Your task to perform on an android device: set the stopwatch Image 0: 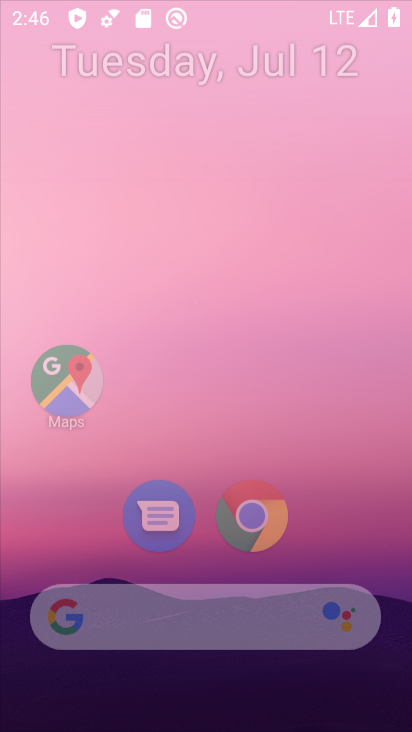
Step 0: press home button
Your task to perform on an android device: set the stopwatch Image 1: 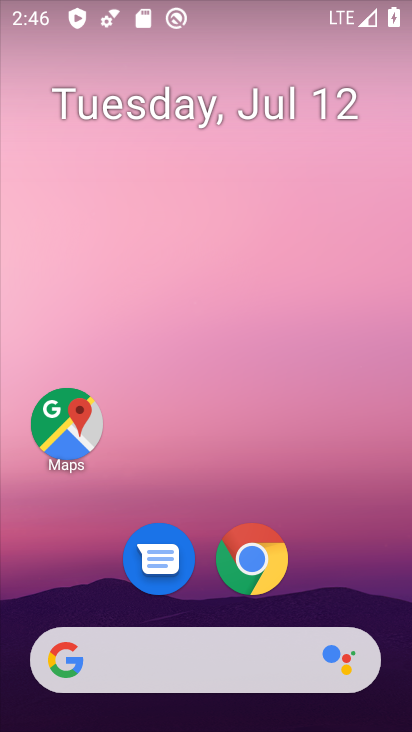
Step 1: drag from (352, 610) to (332, 171)
Your task to perform on an android device: set the stopwatch Image 2: 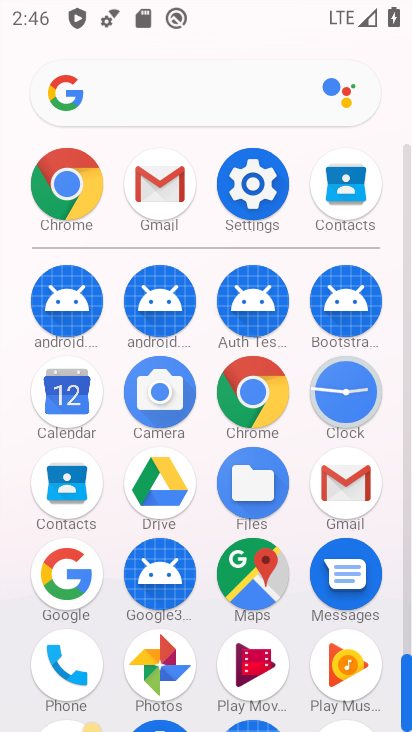
Step 2: click (363, 396)
Your task to perform on an android device: set the stopwatch Image 3: 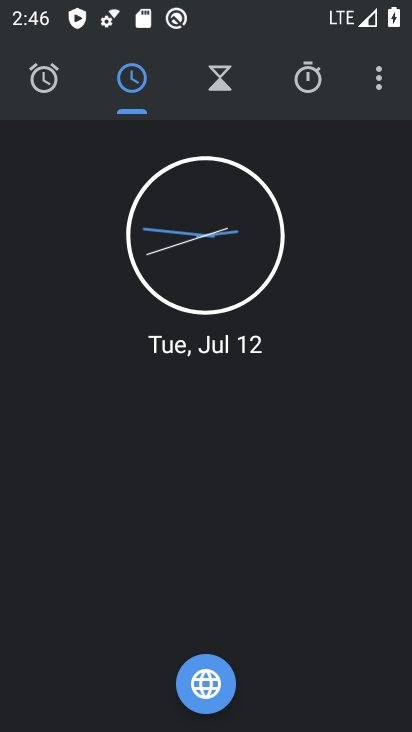
Step 3: click (305, 78)
Your task to perform on an android device: set the stopwatch Image 4: 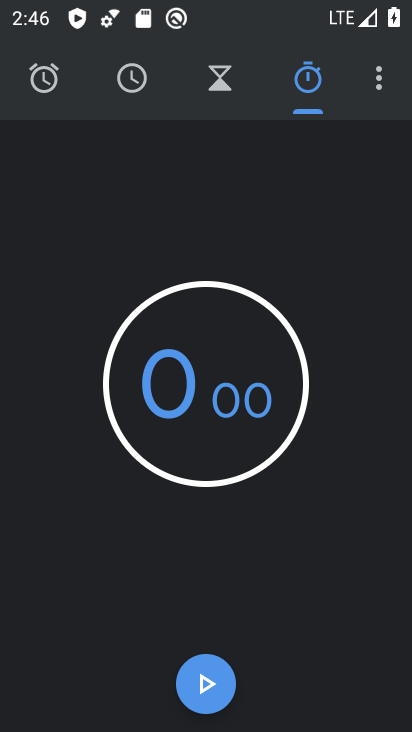
Step 4: click (218, 684)
Your task to perform on an android device: set the stopwatch Image 5: 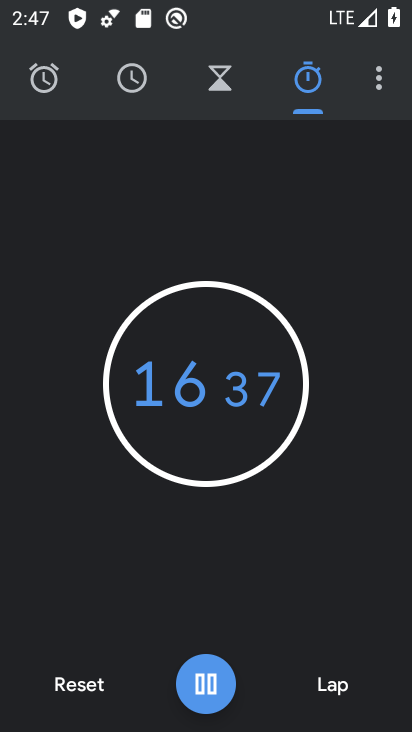
Step 5: task complete